Your task to perform on an android device: Open the phone app and click the voicemail tab. Image 0: 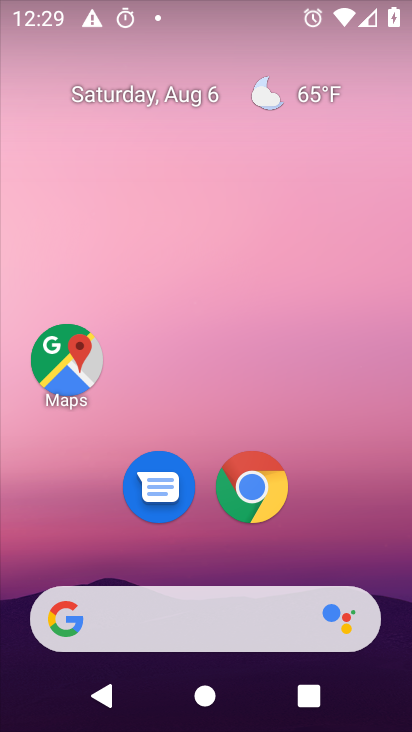
Step 0: drag from (251, 462) to (292, 0)
Your task to perform on an android device: Open the phone app and click the voicemail tab. Image 1: 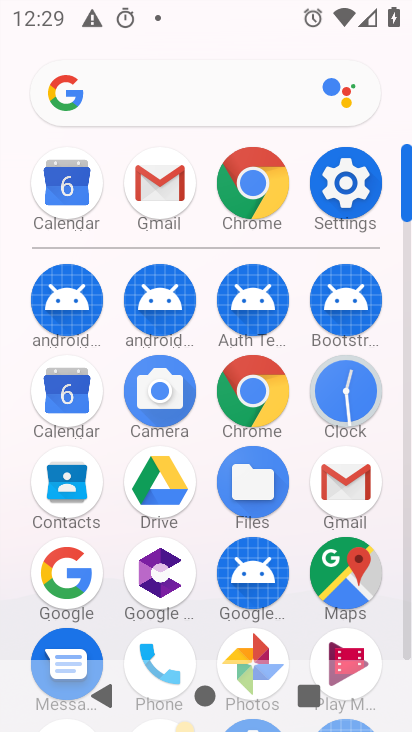
Step 1: click (156, 643)
Your task to perform on an android device: Open the phone app and click the voicemail tab. Image 2: 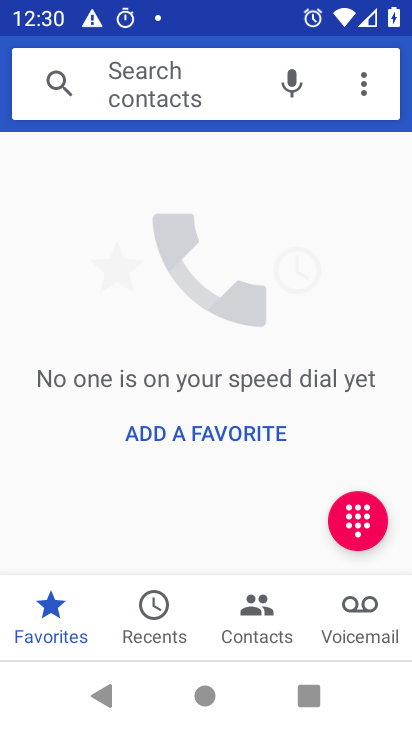
Step 2: click (355, 620)
Your task to perform on an android device: Open the phone app and click the voicemail tab. Image 3: 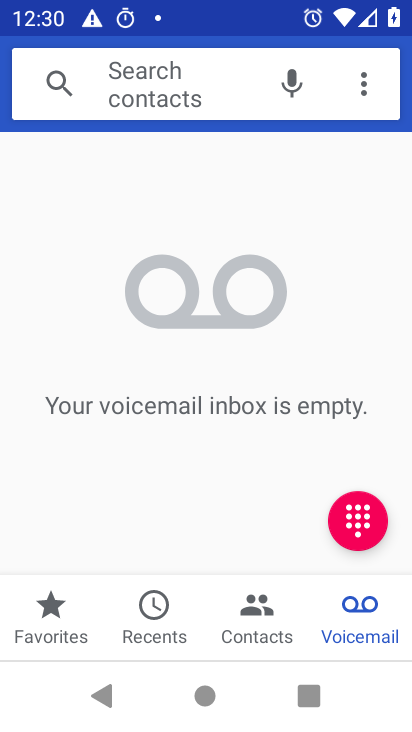
Step 3: task complete